Your task to perform on an android device: search for starred emails in the gmail app Image 0: 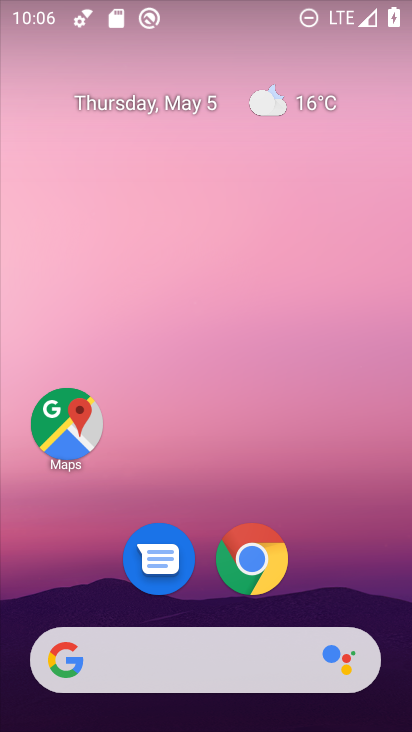
Step 0: drag from (388, 643) to (304, 82)
Your task to perform on an android device: search for starred emails in the gmail app Image 1: 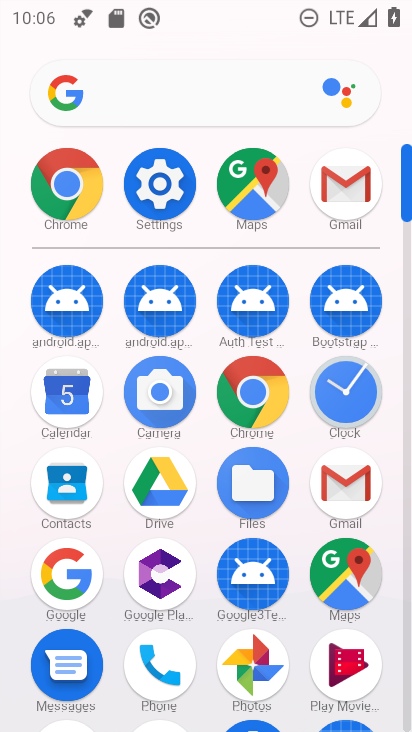
Step 1: click (329, 465)
Your task to perform on an android device: search for starred emails in the gmail app Image 2: 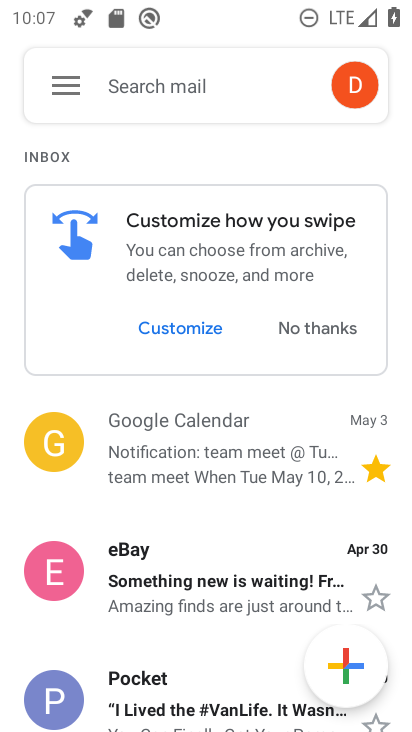
Step 2: click (65, 94)
Your task to perform on an android device: search for starred emails in the gmail app Image 3: 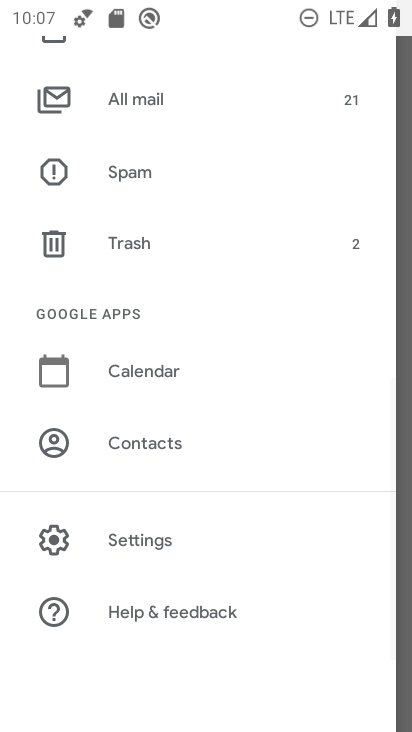
Step 3: drag from (142, 201) to (153, 645)
Your task to perform on an android device: search for starred emails in the gmail app Image 4: 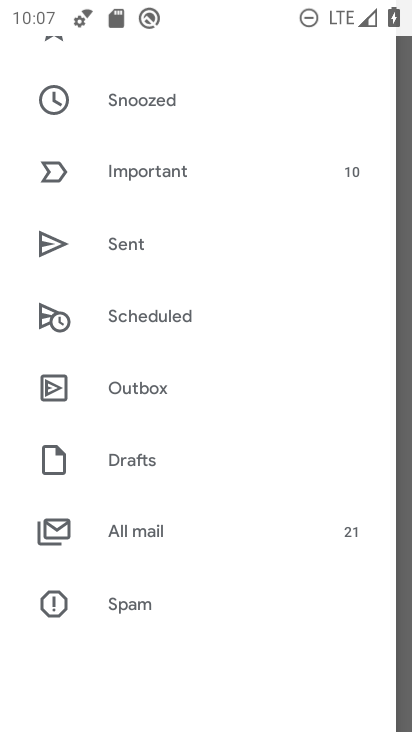
Step 4: drag from (187, 145) to (247, 469)
Your task to perform on an android device: search for starred emails in the gmail app Image 5: 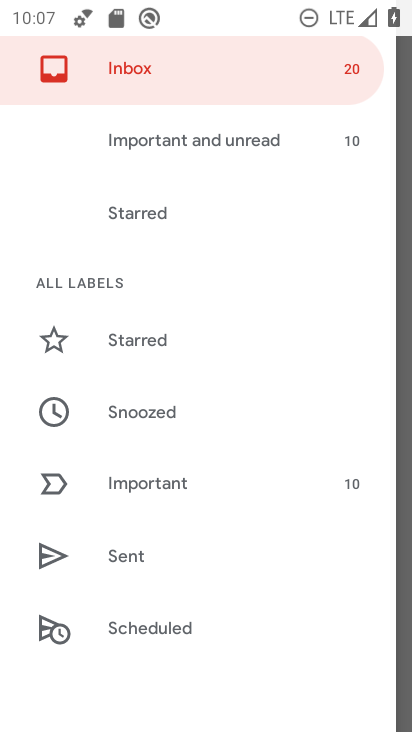
Step 5: click (156, 346)
Your task to perform on an android device: search for starred emails in the gmail app Image 6: 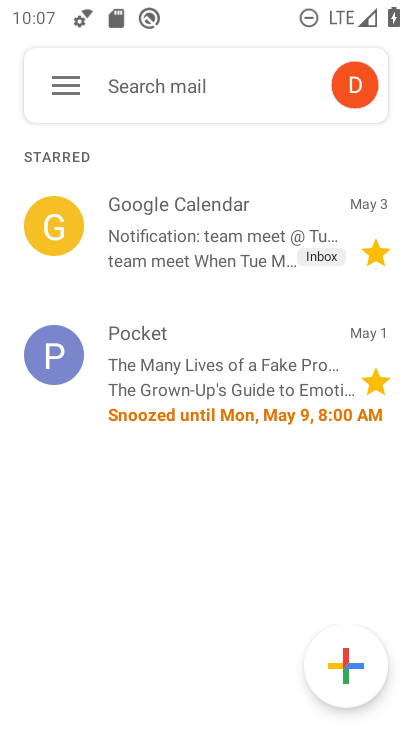
Step 6: task complete